Your task to perform on an android device: Open notification settings Image 0: 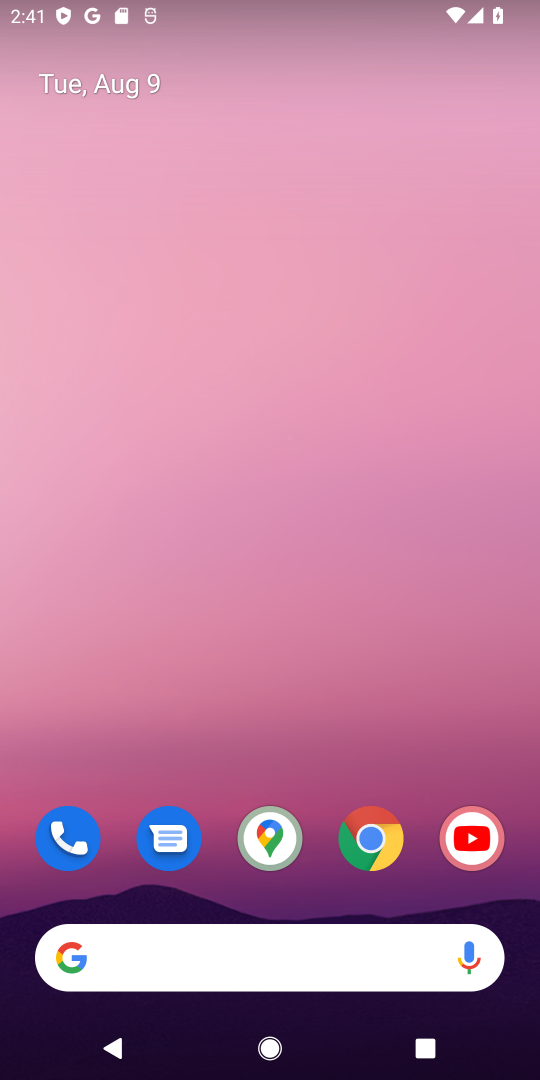
Step 0: drag from (325, 899) to (467, 140)
Your task to perform on an android device: Open notification settings Image 1: 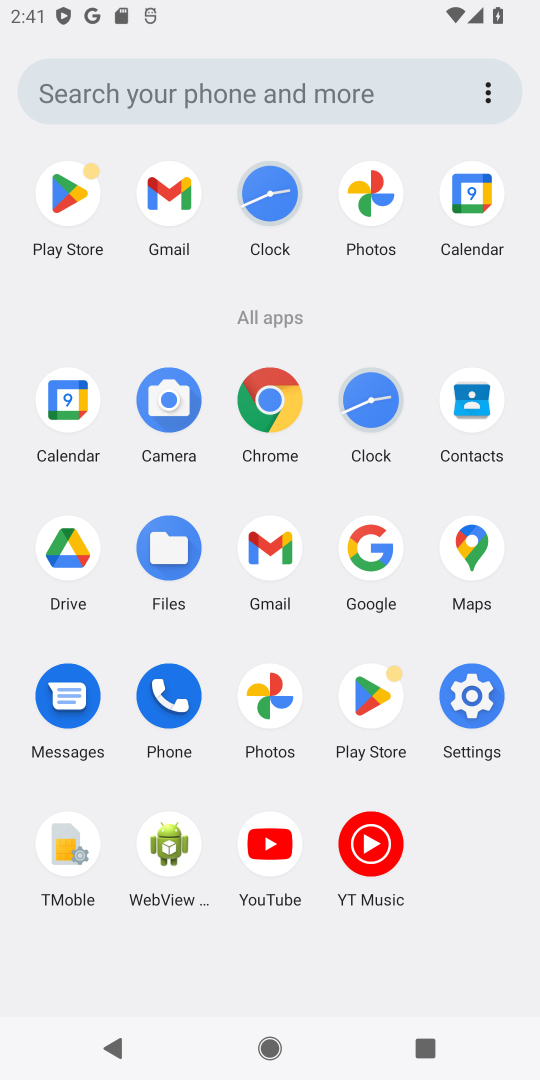
Step 1: click (482, 693)
Your task to perform on an android device: Open notification settings Image 2: 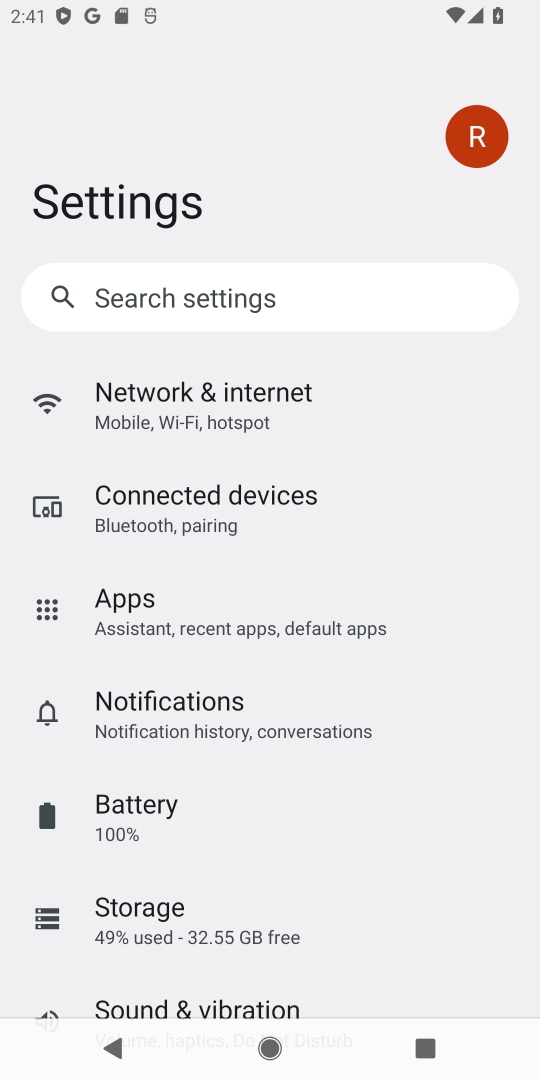
Step 2: click (176, 726)
Your task to perform on an android device: Open notification settings Image 3: 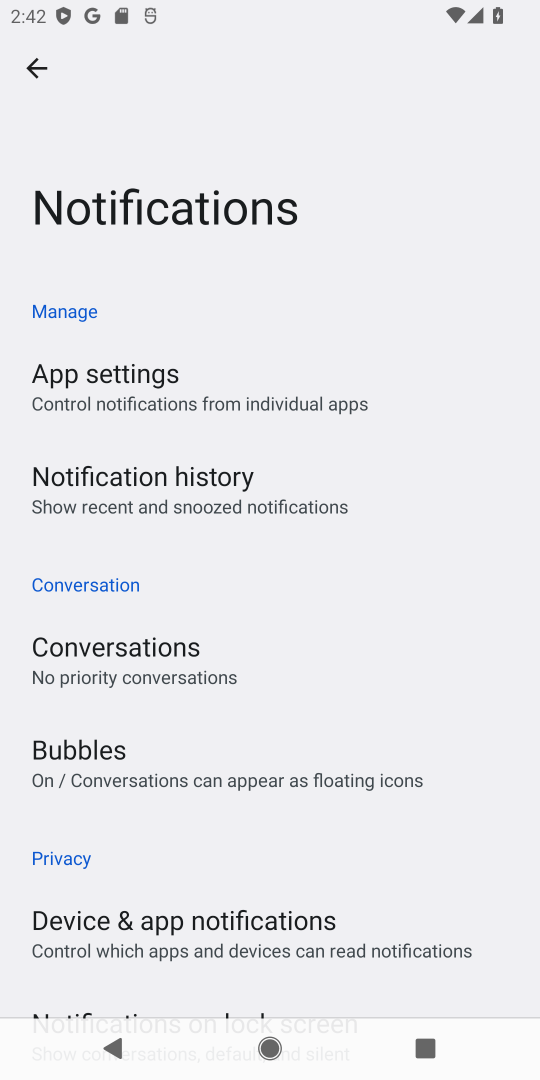
Step 3: task complete